Your task to perform on an android device: turn off sleep mode Image 0: 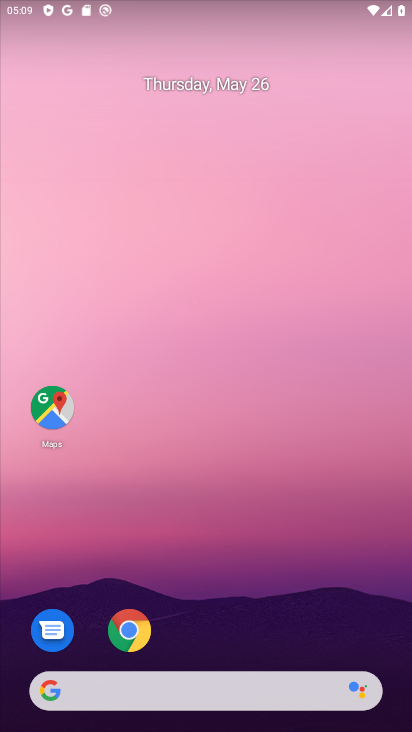
Step 0: drag from (216, 643) to (293, 229)
Your task to perform on an android device: turn off sleep mode Image 1: 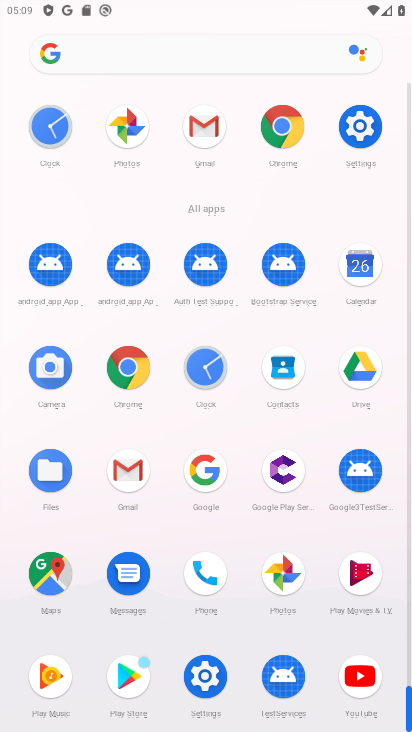
Step 1: drag from (198, 645) to (255, 434)
Your task to perform on an android device: turn off sleep mode Image 2: 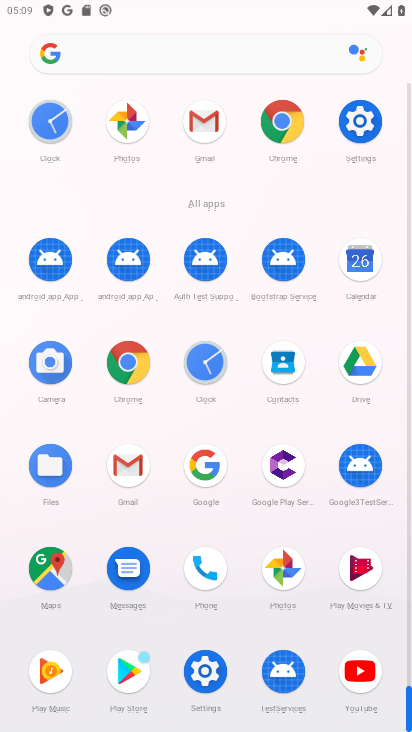
Step 2: click (211, 688)
Your task to perform on an android device: turn off sleep mode Image 3: 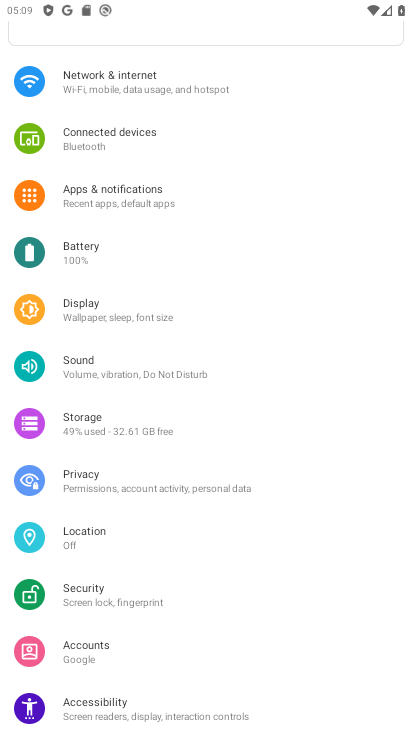
Step 3: click (176, 303)
Your task to perform on an android device: turn off sleep mode Image 4: 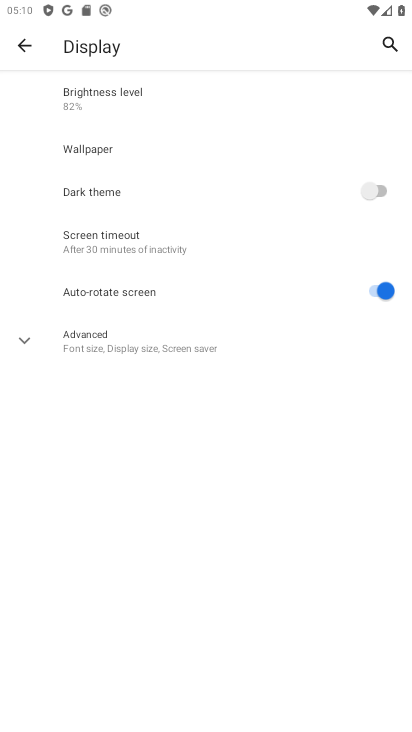
Step 4: click (170, 337)
Your task to perform on an android device: turn off sleep mode Image 5: 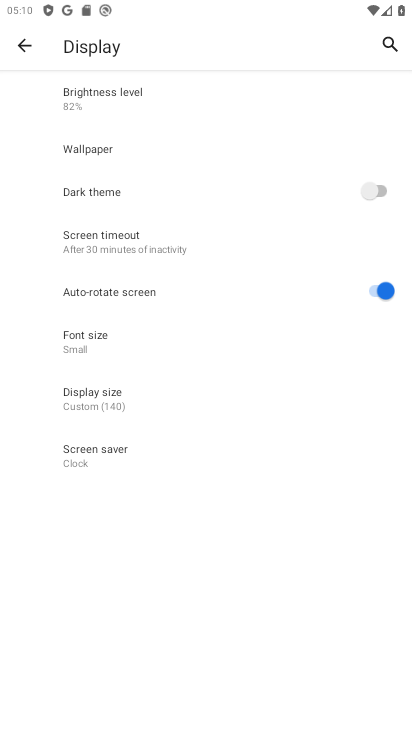
Step 5: task complete